Your task to perform on an android device: create a new album in the google photos Image 0: 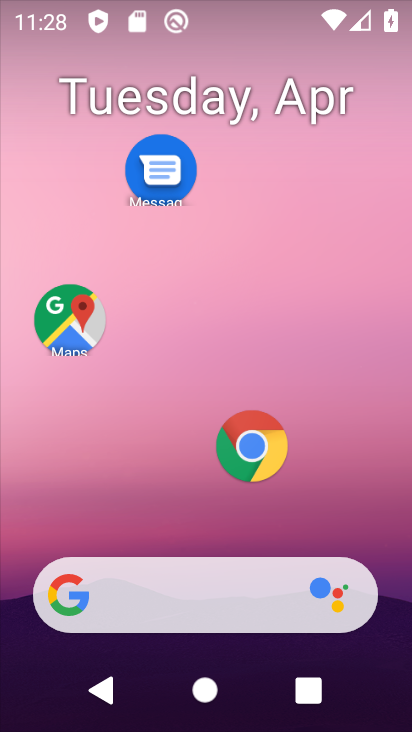
Step 0: drag from (301, 550) to (320, 6)
Your task to perform on an android device: create a new album in the google photos Image 1: 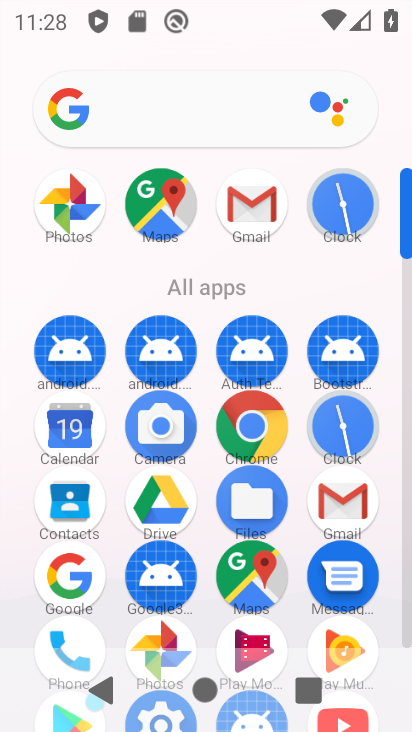
Step 1: click (172, 640)
Your task to perform on an android device: create a new album in the google photos Image 2: 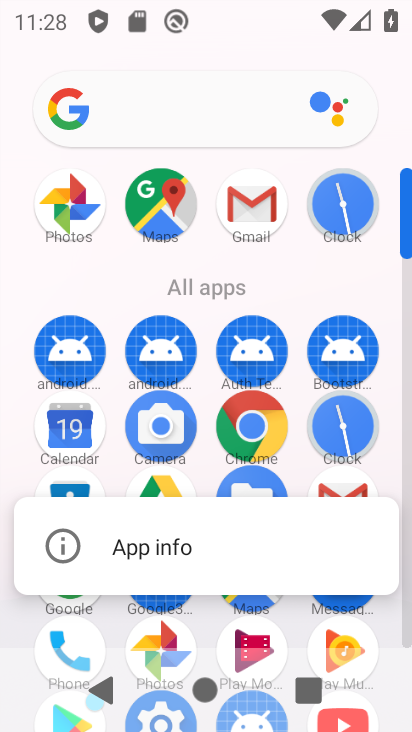
Step 2: click (177, 638)
Your task to perform on an android device: create a new album in the google photos Image 3: 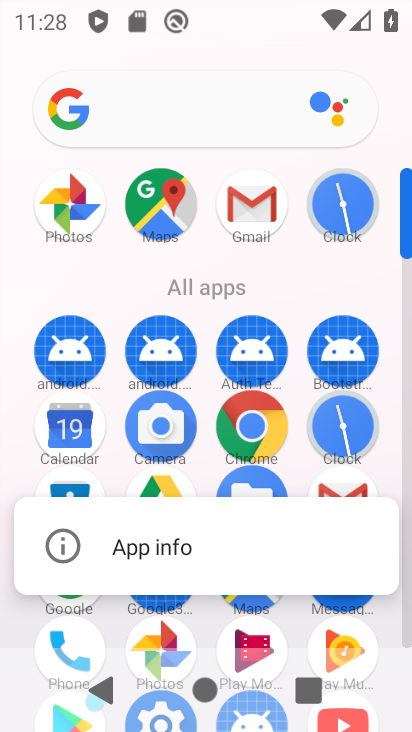
Step 3: click (177, 638)
Your task to perform on an android device: create a new album in the google photos Image 4: 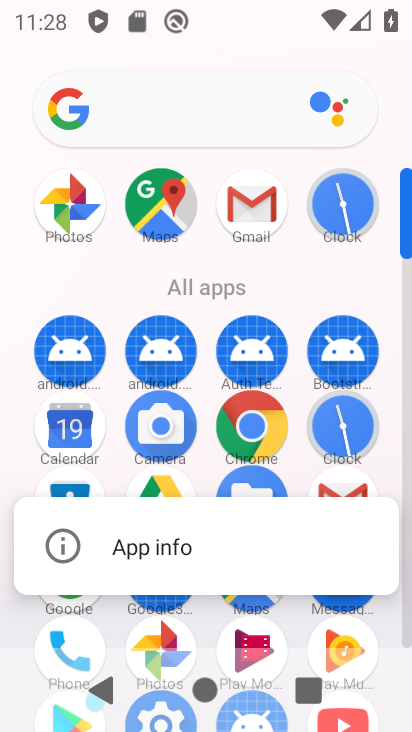
Step 4: click (177, 638)
Your task to perform on an android device: create a new album in the google photos Image 5: 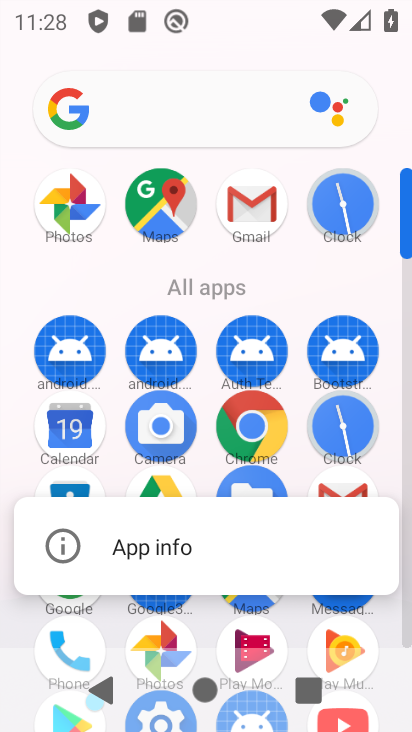
Step 5: click (170, 645)
Your task to perform on an android device: create a new album in the google photos Image 6: 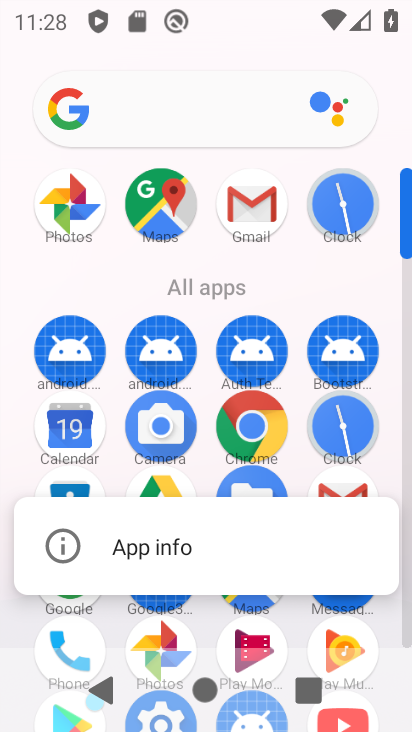
Step 6: click (183, 641)
Your task to perform on an android device: create a new album in the google photos Image 7: 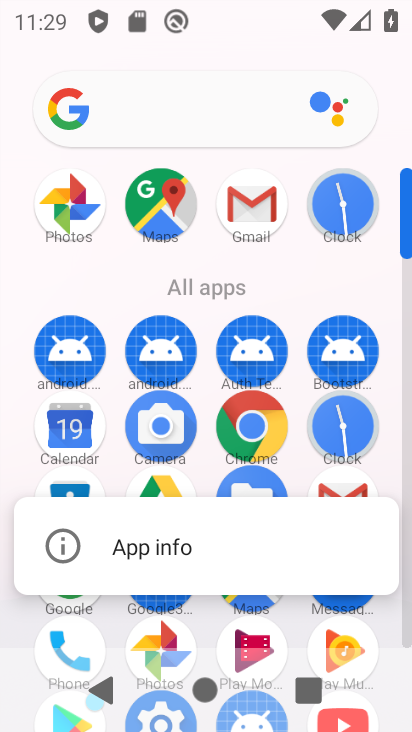
Step 7: click (156, 639)
Your task to perform on an android device: create a new album in the google photos Image 8: 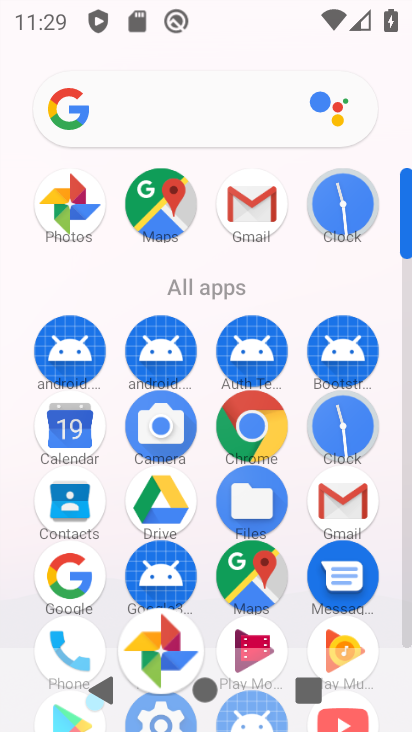
Step 8: click (156, 639)
Your task to perform on an android device: create a new album in the google photos Image 9: 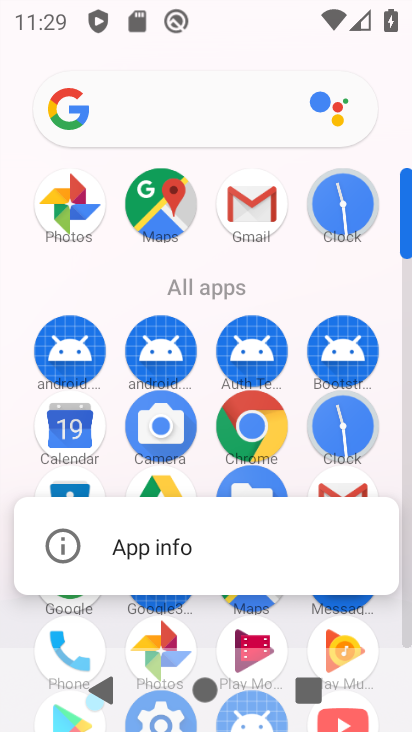
Step 9: click (154, 639)
Your task to perform on an android device: create a new album in the google photos Image 10: 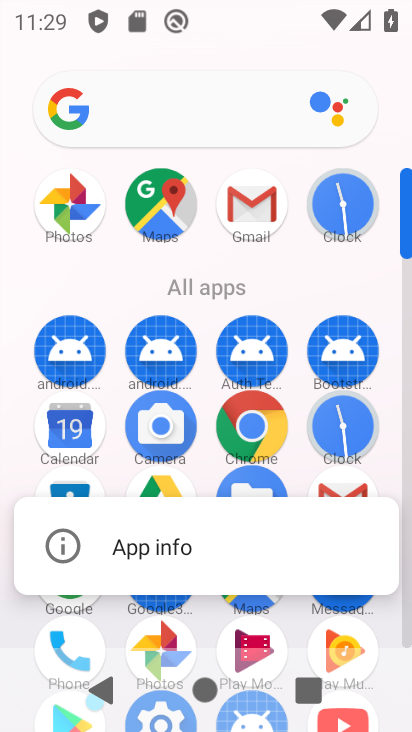
Step 10: click (157, 636)
Your task to perform on an android device: create a new album in the google photos Image 11: 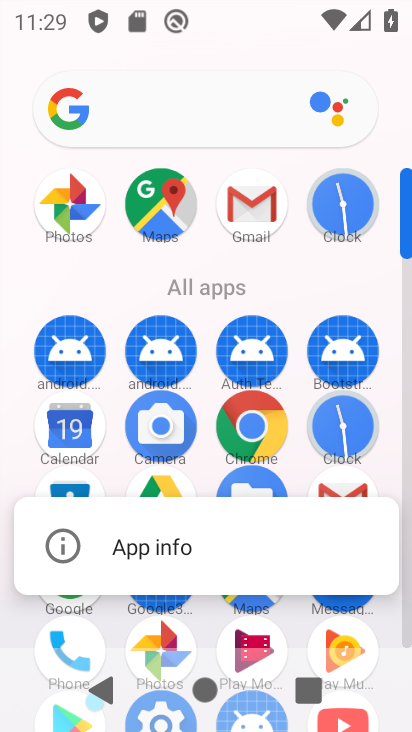
Step 11: click (157, 636)
Your task to perform on an android device: create a new album in the google photos Image 12: 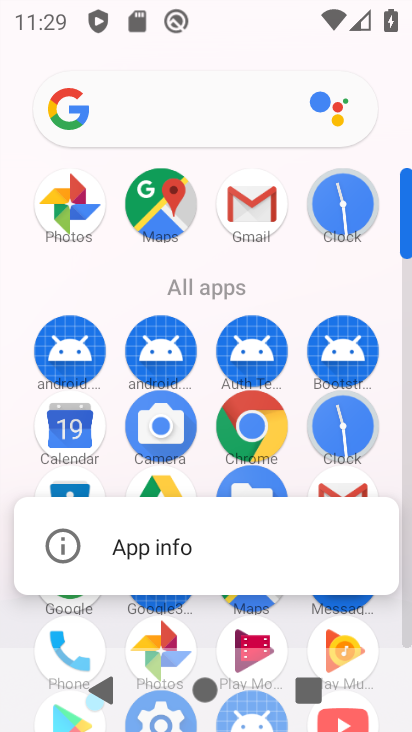
Step 12: click (157, 636)
Your task to perform on an android device: create a new album in the google photos Image 13: 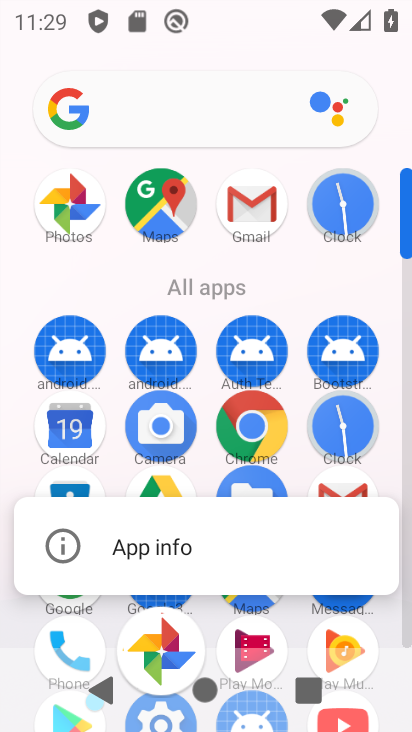
Step 13: click (155, 652)
Your task to perform on an android device: create a new album in the google photos Image 14: 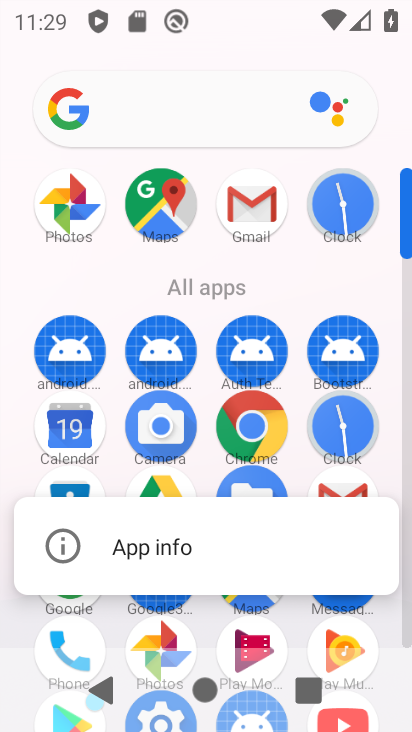
Step 14: drag from (306, 625) to (307, 120)
Your task to perform on an android device: create a new album in the google photos Image 15: 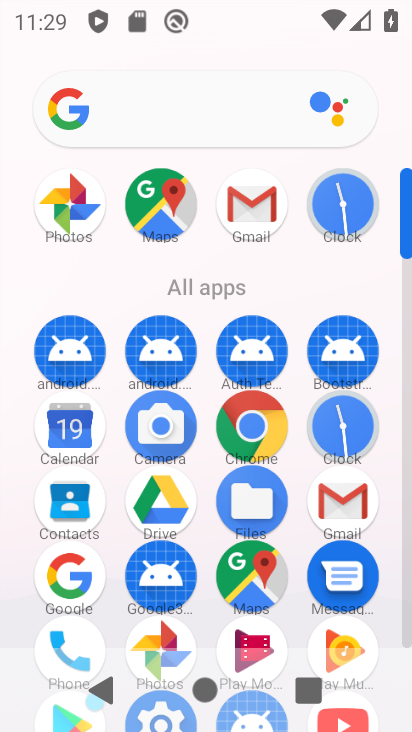
Step 15: drag from (195, 550) to (222, 169)
Your task to perform on an android device: create a new album in the google photos Image 16: 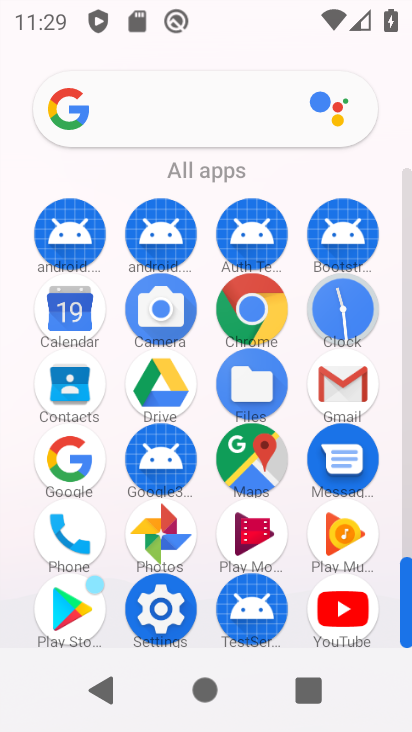
Step 16: click (176, 539)
Your task to perform on an android device: create a new album in the google photos Image 17: 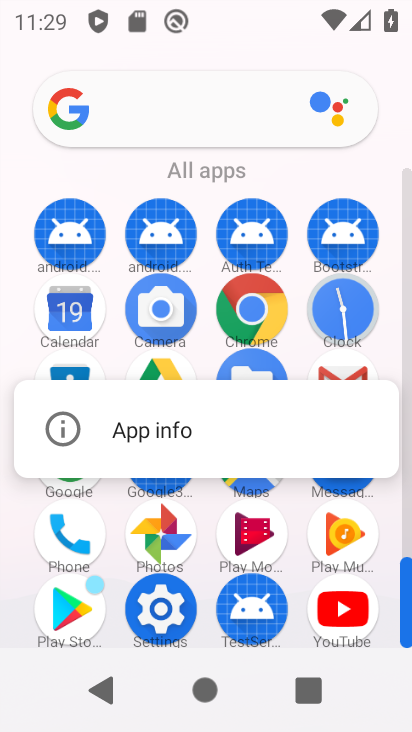
Step 17: click (176, 539)
Your task to perform on an android device: create a new album in the google photos Image 18: 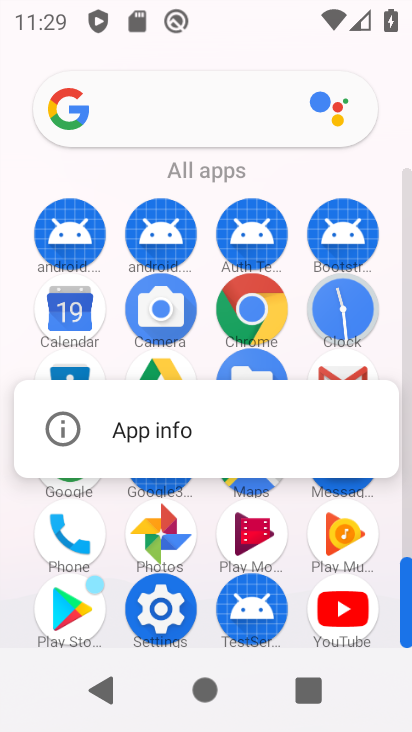
Step 18: click (176, 539)
Your task to perform on an android device: create a new album in the google photos Image 19: 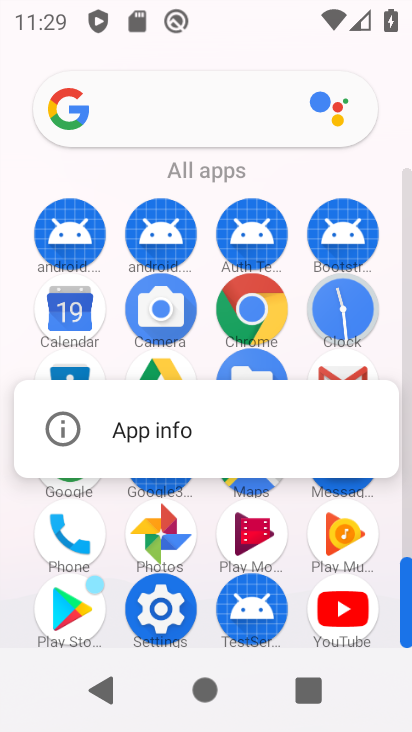
Step 19: click (176, 539)
Your task to perform on an android device: create a new album in the google photos Image 20: 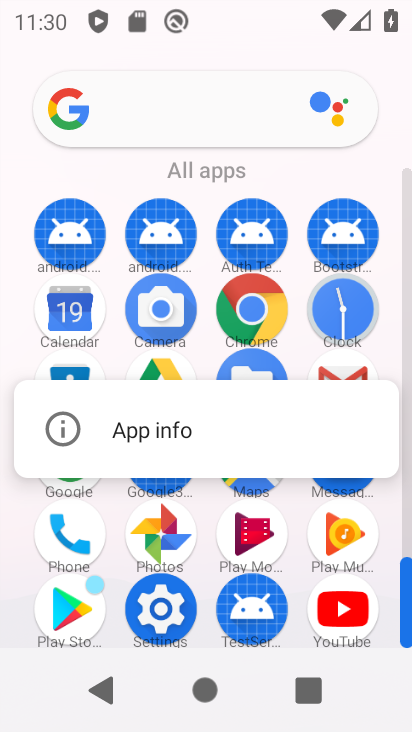
Step 20: click (151, 532)
Your task to perform on an android device: create a new album in the google photos Image 21: 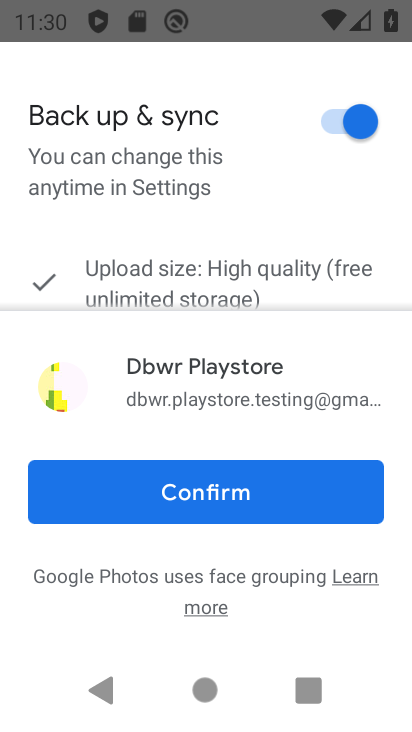
Step 21: click (259, 478)
Your task to perform on an android device: create a new album in the google photos Image 22: 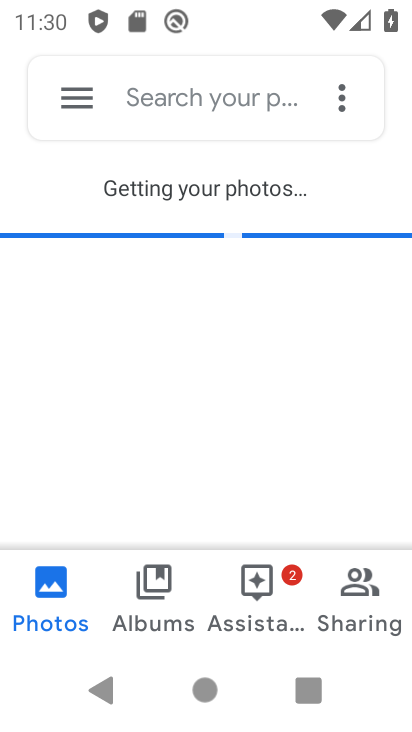
Step 22: click (160, 584)
Your task to perform on an android device: create a new album in the google photos Image 23: 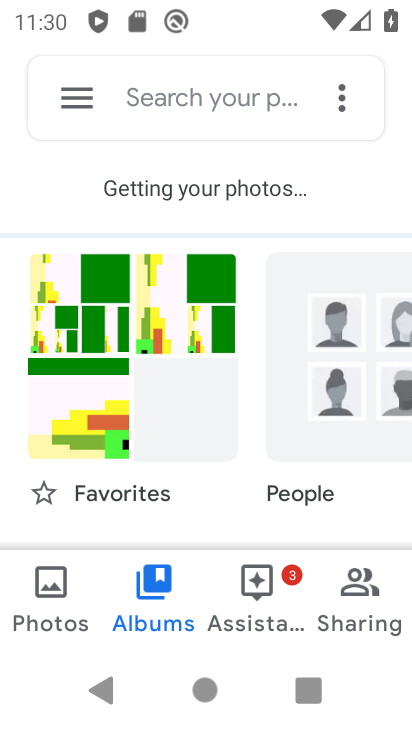
Step 23: drag from (256, 511) to (265, 96)
Your task to perform on an android device: create a new album in the google photos Image 24: 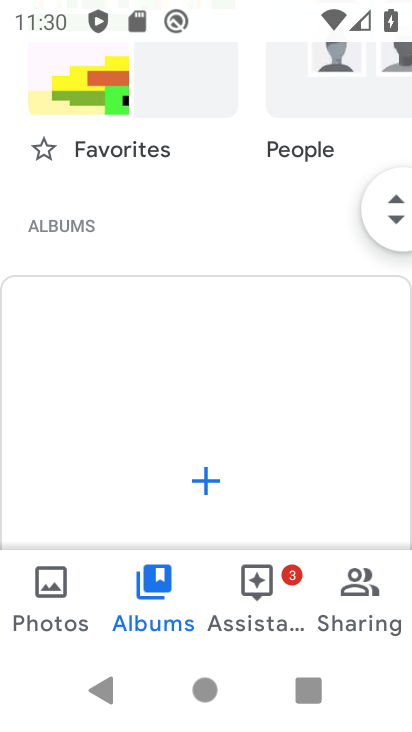
Step 24: click (211, 468)
Your task to perform on an android device: create a new album in the google photos Image 25: 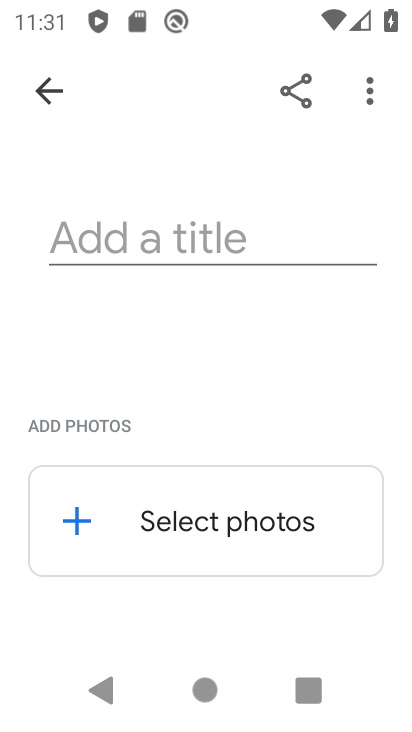
Step 25: click (240, 235)
Your task to perform on an android device: create a new album in the google photos Image 26: 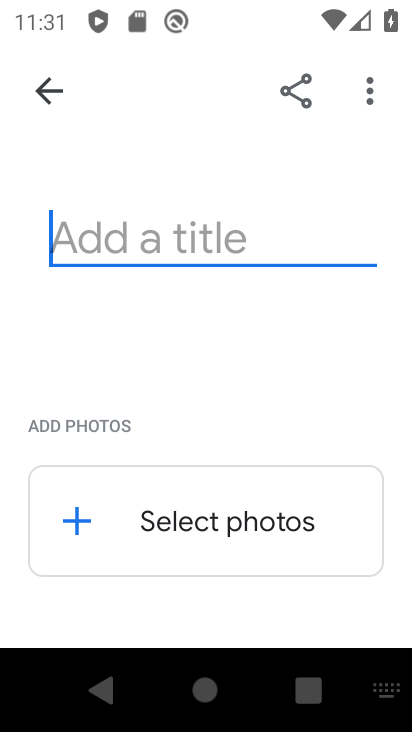
Step 26: type "vuggjjjjjjkjkk"
Your task to perform on an android device: create a new album in the google photos Image 27: 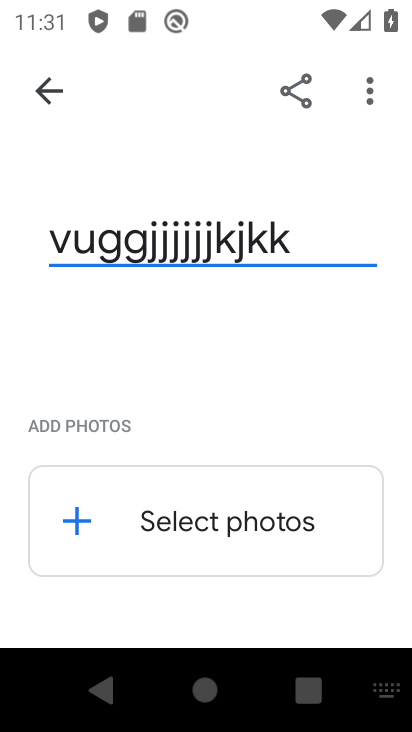
Step 27: click (227, 506)
Your task to perform on an android device: create a new album in the google photos Image 28: 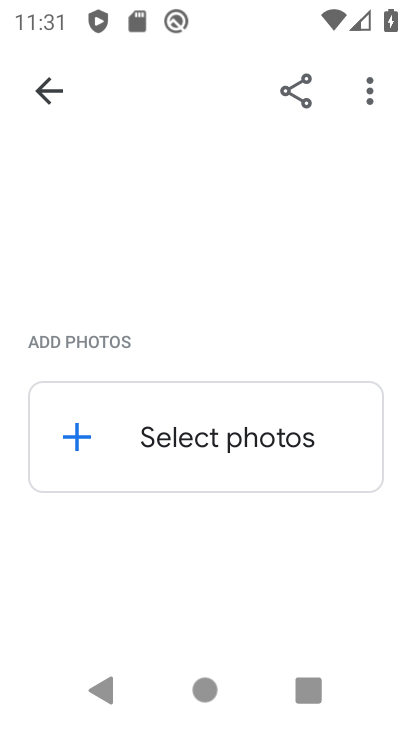
Step 28: click (78, 430)
Your task to perform on an android device: create a new album in the google photos Image 29: 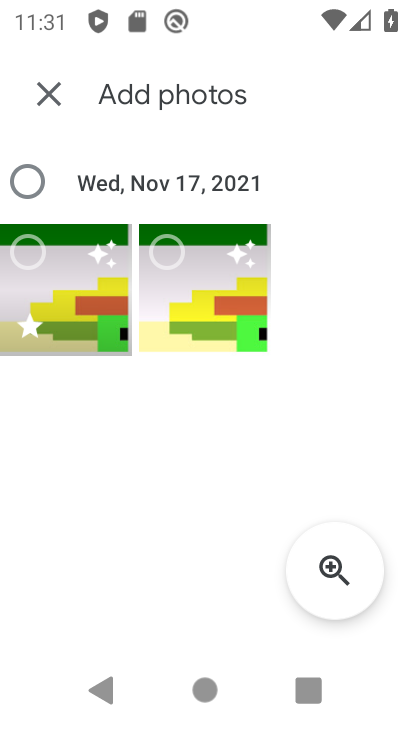
Step 29: click (65, 290)
Your task to perform on an android device: create a new album in the google photos Image 30: 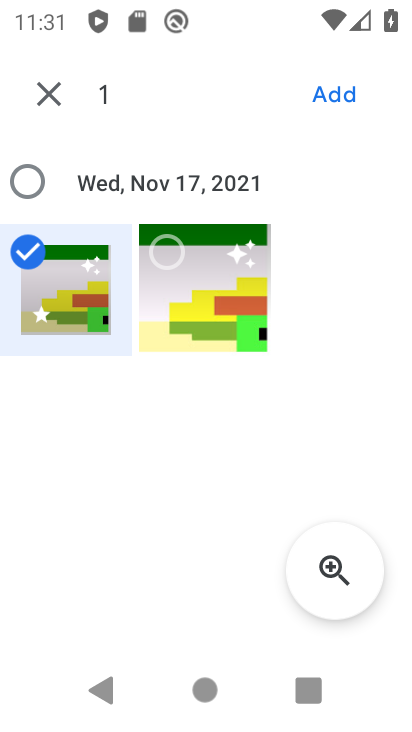
Step 30: click (339, 95)
Your task to perform on an android device: create a new album in the google photos Image 31: 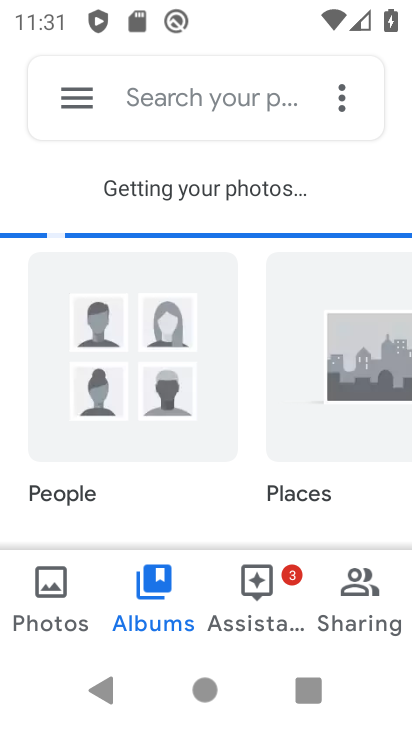
Step 31: task complete